Your task to perform on an android device: Open display settings Image 0: 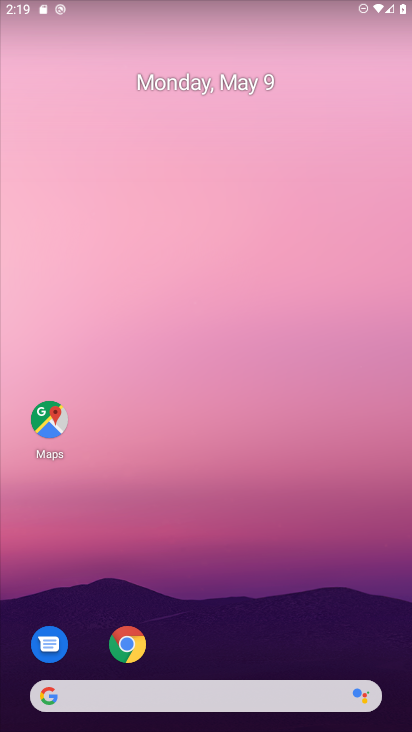
Step 0: drag from (281, 597) to (224, 200)
Your task to perform on an android device: Open display settings Image 1: 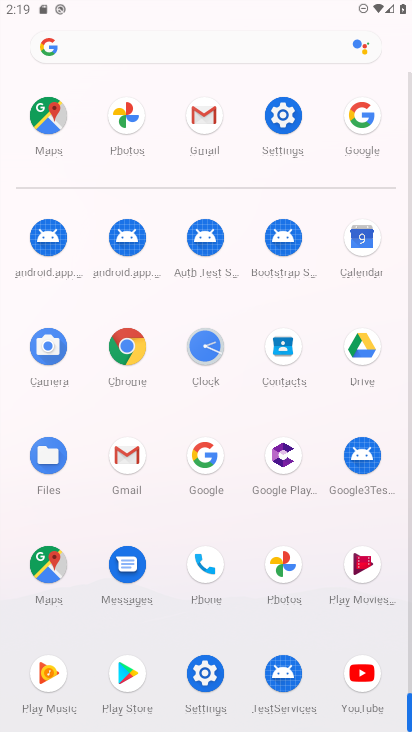
Step 1: drag from (230, 648) to (302, 211)
Your task to perform on an android device: Open display settings Image 2: 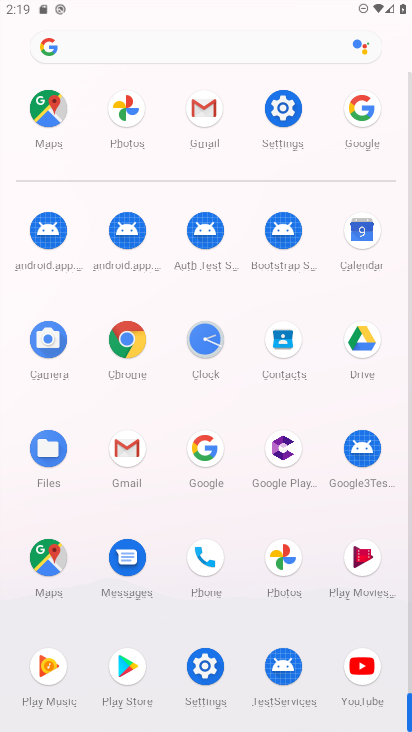
Step 2: click (206, 684)
Your task to perform on an android device: Open display settings Image 3: 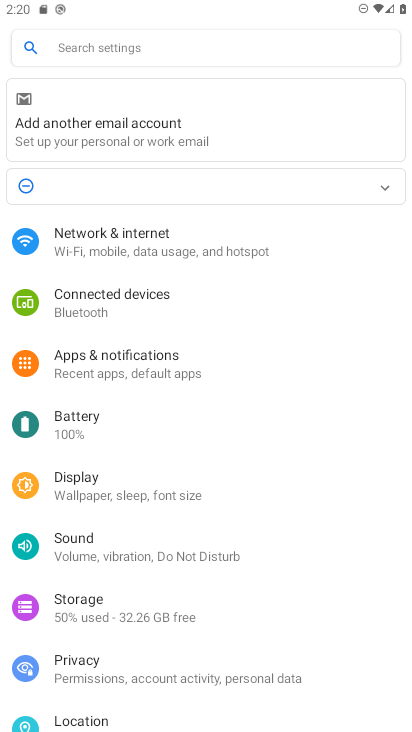
Step 3: click (69, 489)
Your task to perform on an android device: Open display settings Image 4: 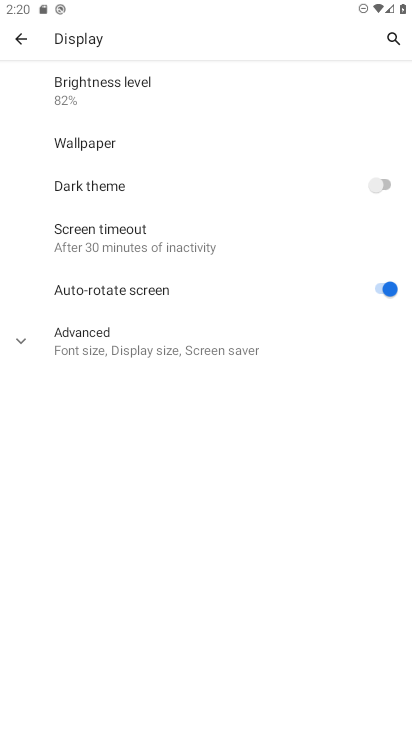
Step 4: task complete